Your task to perform on an android device: toggle notification dots Image 0: 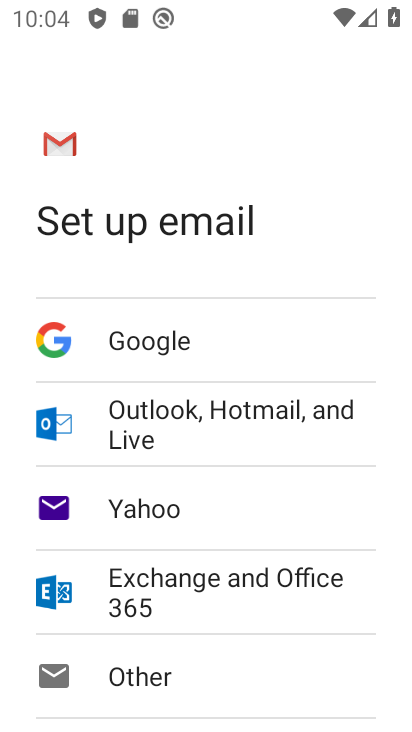
Step 0: press home button
Your task to perform on an android device: toggle notification dots Image 1: 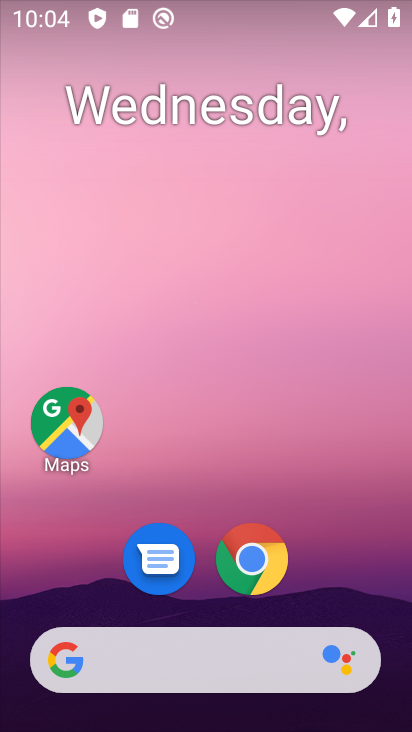
Step 1: drag from (366, 566) to (267, 0)
Your task to perform on an android device: toggle notification dots Image 2: 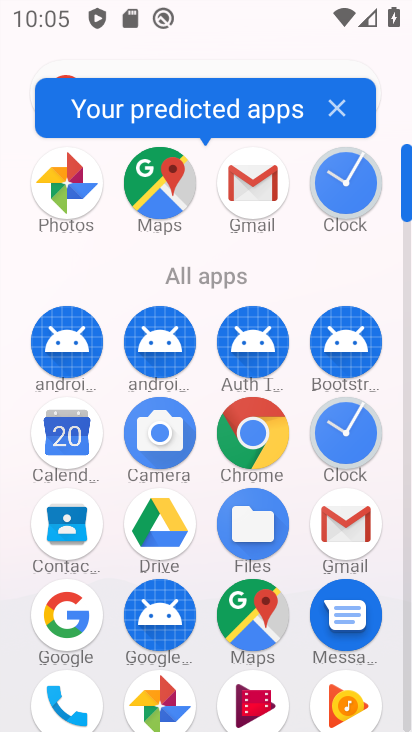
Step 2: drag from (406, 234) to (411, 480)
Your task to perform on an android device: toggle notification dots Image 3: 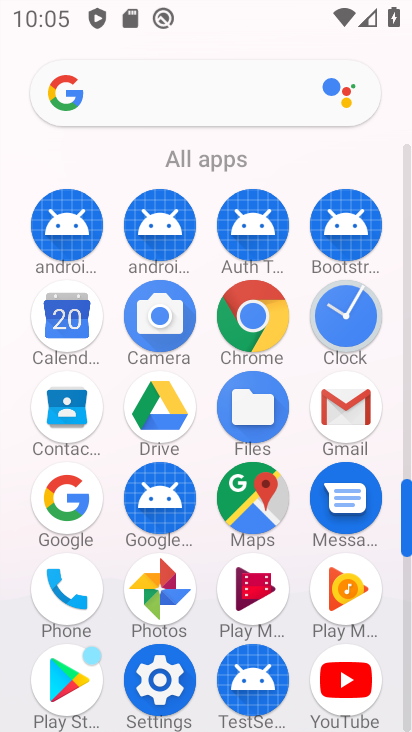
Step 3: click (148, 694)
Your task to perform on an android device: toggle notification dots Image 4: 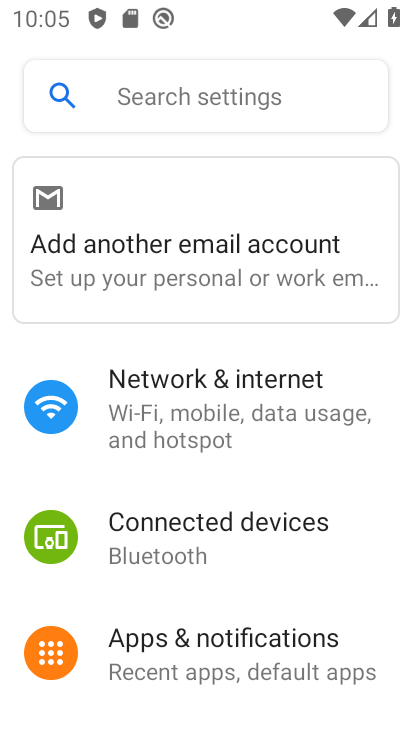
Step 4: click (157, 622)
Your task to perform on an android device: toggle notification dots Image 5: 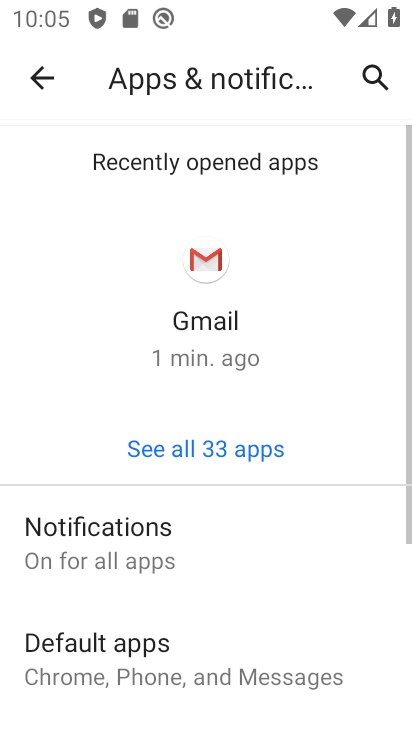
Step 5: click (207, 542)
Your task to perform on an android device: toggle notification dots Image 6: 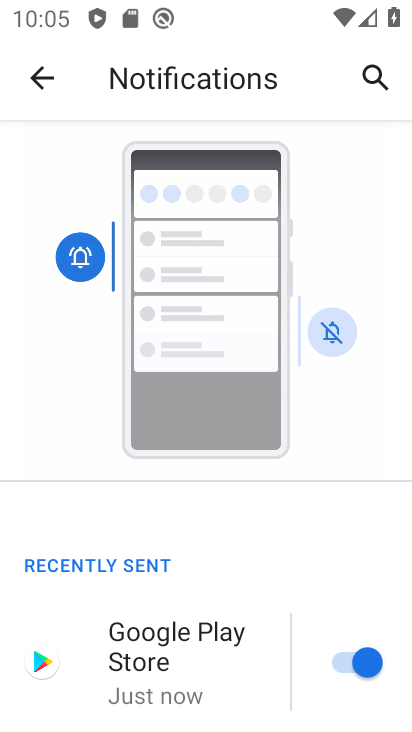
Step 6: drag from (242, 574) to (239, 284)
Your task to perform on an android device: toggle notification dots Image 7: 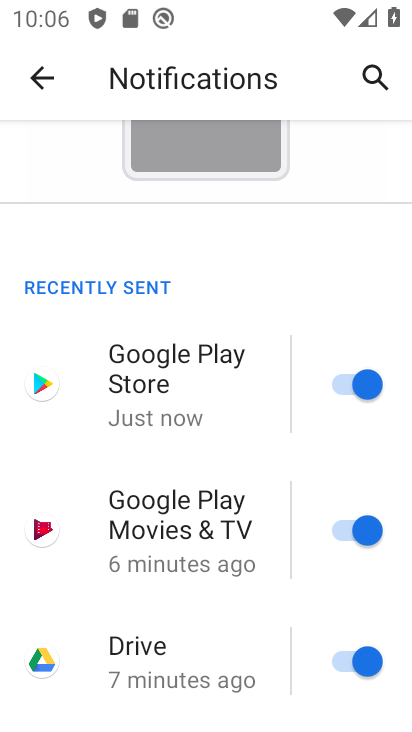
Step 7: drag from (271, 640) to (232, 237)
Your task to perform on an android device: toggle notification dots Image 8: 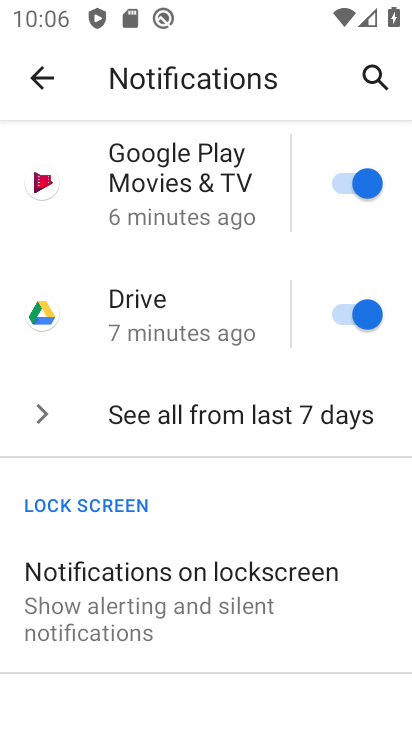
Step 8: drag from (211, 647) to (204, 471)
Your task to perform on an android device: toggle notification dots Image 9: 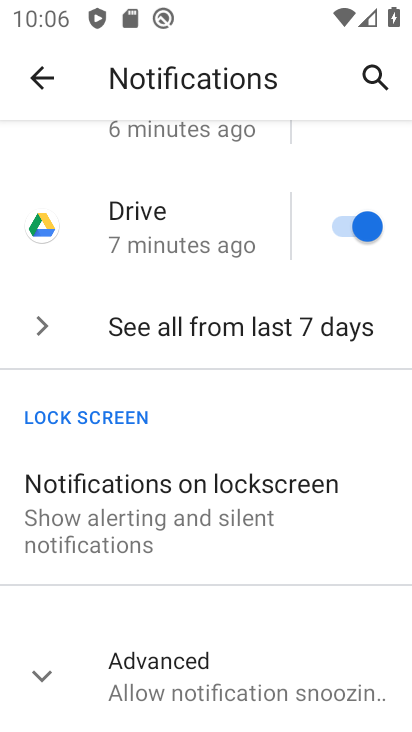
Step 9: click (209, 563)
Your task to perform on an android device: toggle notification dots Image 10: 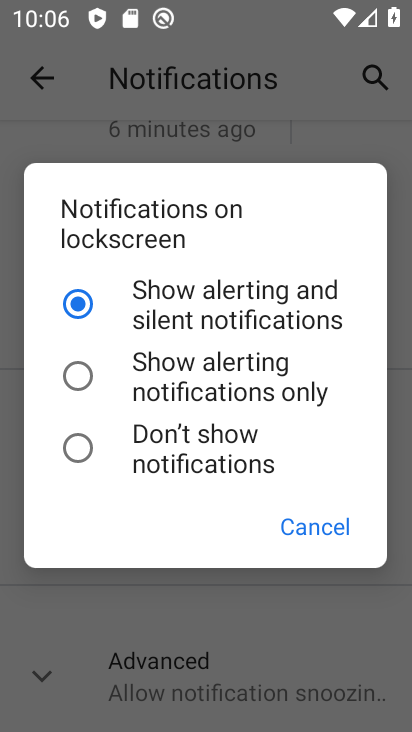
Step 10: click (296, 393)
Your task to perform on an android device: toggle notification dots Image 11: 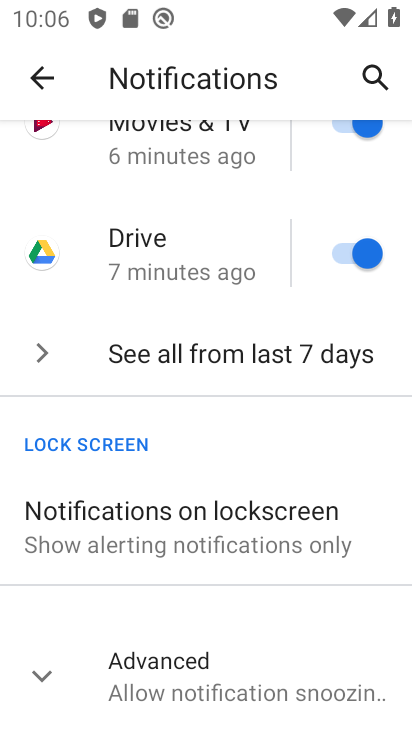
Step 11: task complete